Your task to perform on an android device: create a new album in the google photos Image 0: 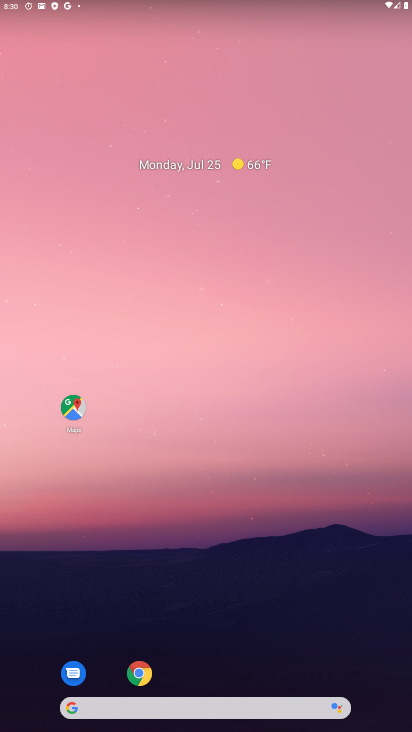
Step 0: click (295, 184)
Your task to perform on an android device: create a new album in the google photos Image 1: 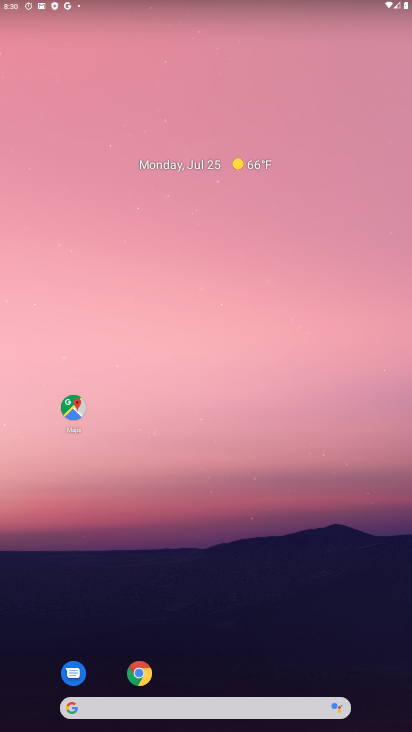
Step 1: drag from (207, 633) to (294, 226)
Your task to perform on an android device: create a new album in the google photos Image 2: 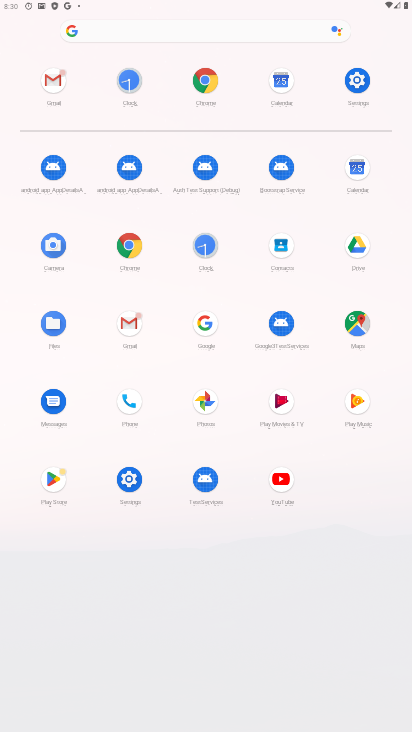
Step 2: click (197, 397)
Your task to perform on an android device: create a new album in the google photos Image 3: 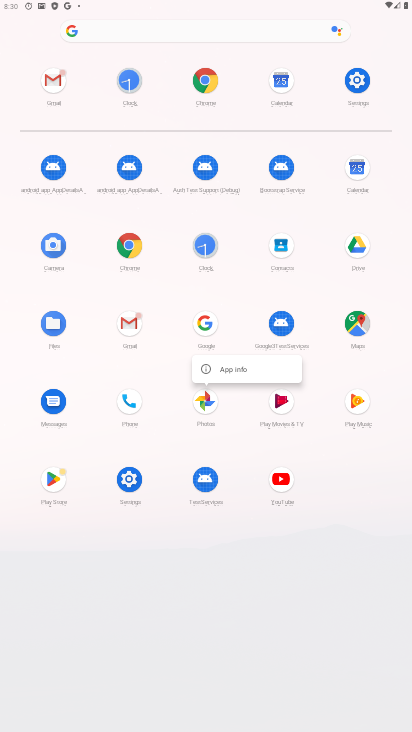
Step 3: click (227, 364)
Your task to perform on an android device: create a new album in the google photos Image 4: 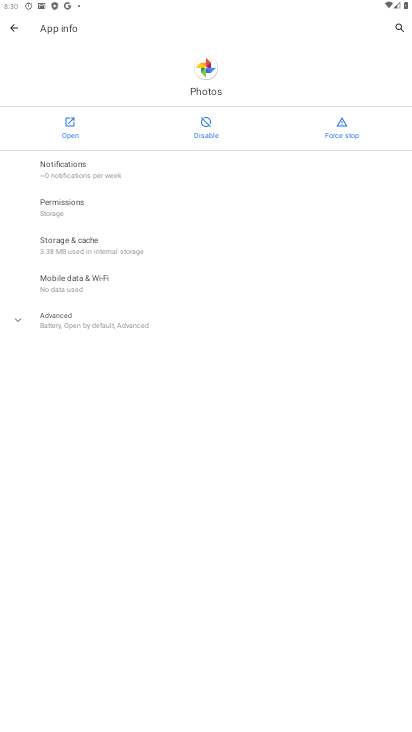
Step 4: click (70, 138)
Your task to perform on an android device: create a new album in the google photos Image 5: 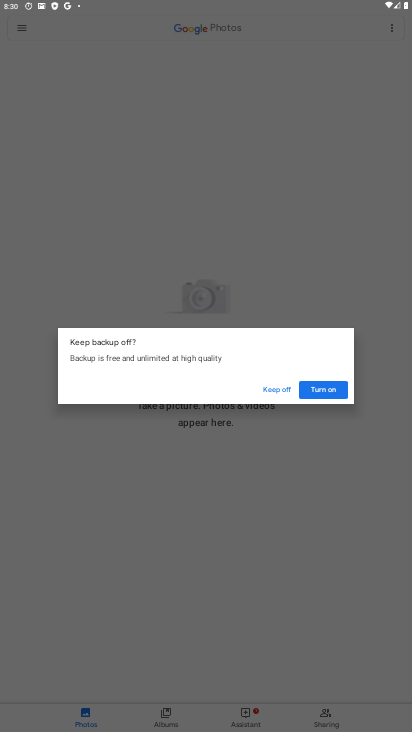
Step 5: click (332, 388)
Your task to perform on an android device: create a new album in the google photos Image 6: 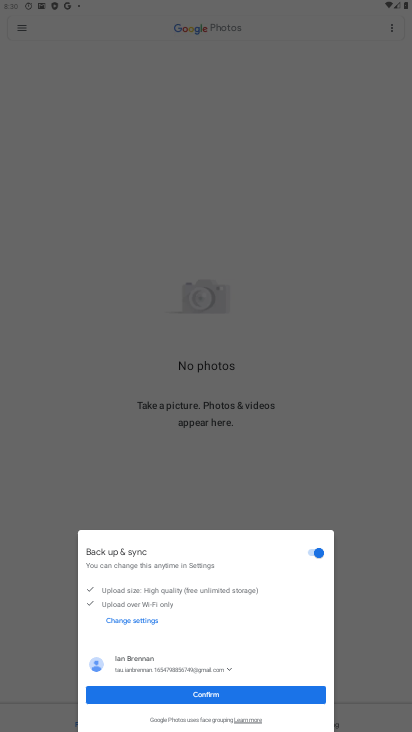
Step 6: click (187, 699)
Your task to perform on an android device: create a new album in the google photos Image 7: 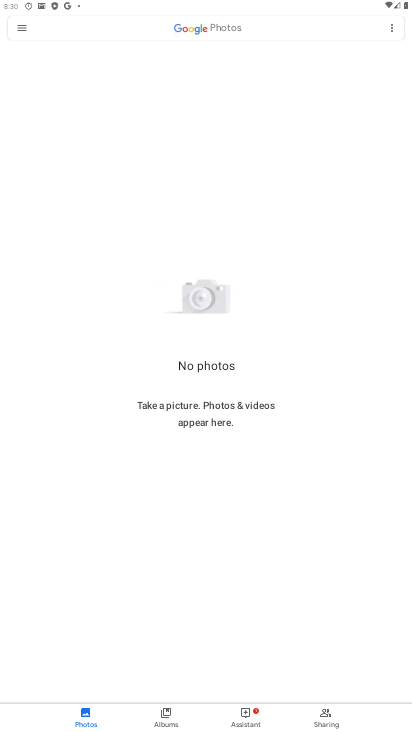
Step 7: drag from (239, 578) to (215, 249)
Your task to perform on an android device: create a new album in the google photos Image 8: 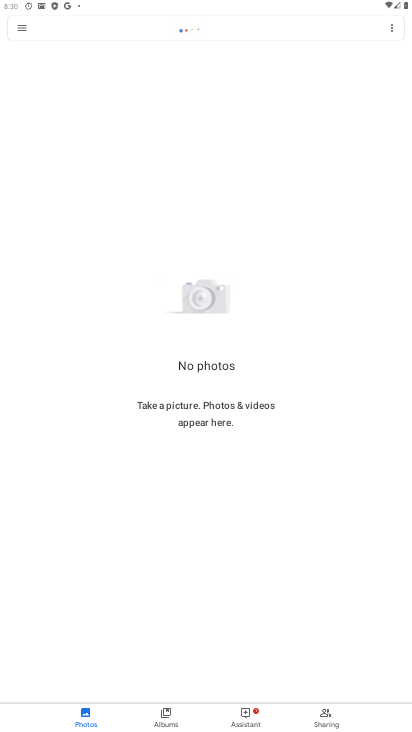
Step 8: click (16, 30)
Your task to perform on an android device: create a new album in the google photos Image 9: 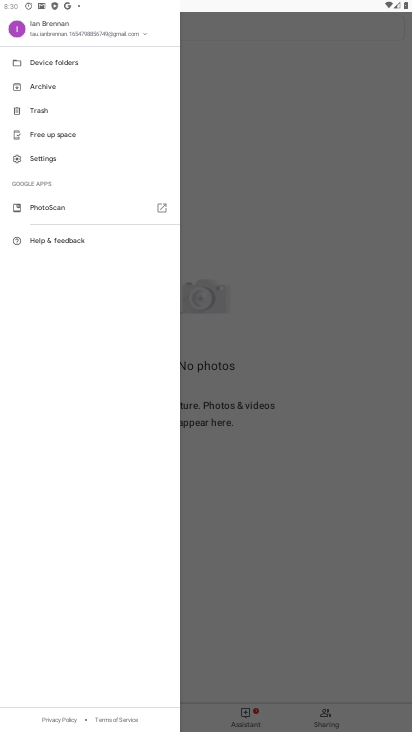
Step 9: click (293, 327)
Your task to perform on an android device: create a new album in the google photos Image 10: 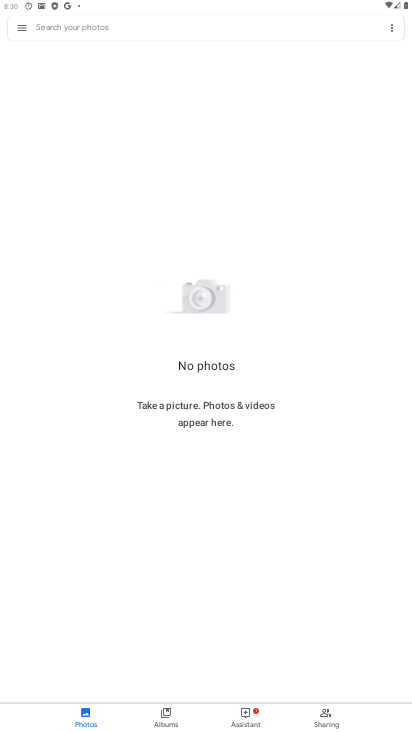
Step 10: click (166, 713)
Your task to perform on an android device: create a new album in the google photos Image 11: 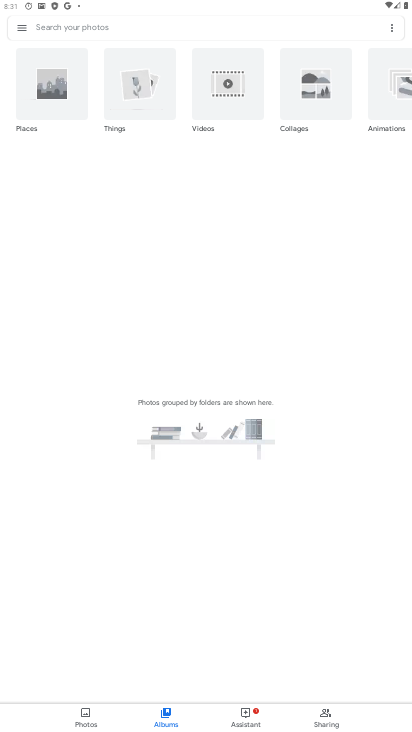
Step 11: drag from (256, 480) to (259, 254)
Your task to perform on an android device: create a new album in the google photos Image 12: 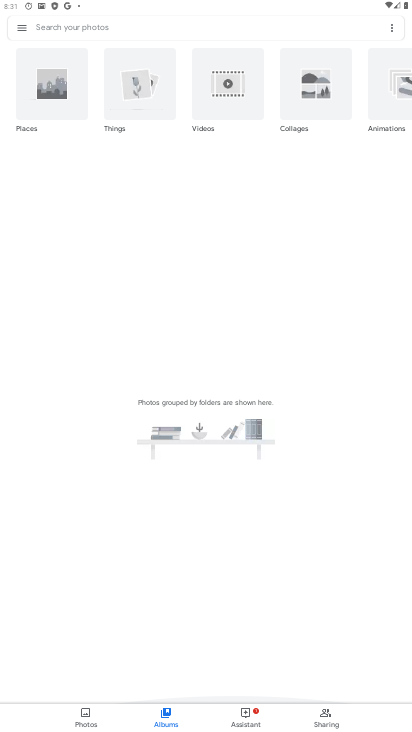
Step 12: drag from (247, 222) to (332, 557)
Your task to perform on an android device: create a new album in the google photos Image 13: 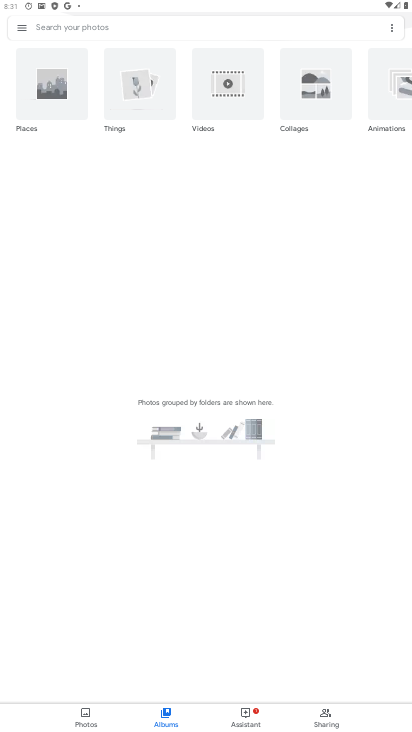
Step 13: drag from (309, 524) to (294, 474)
Your task to perform on an android device: create a new album in the google photos Image 14: 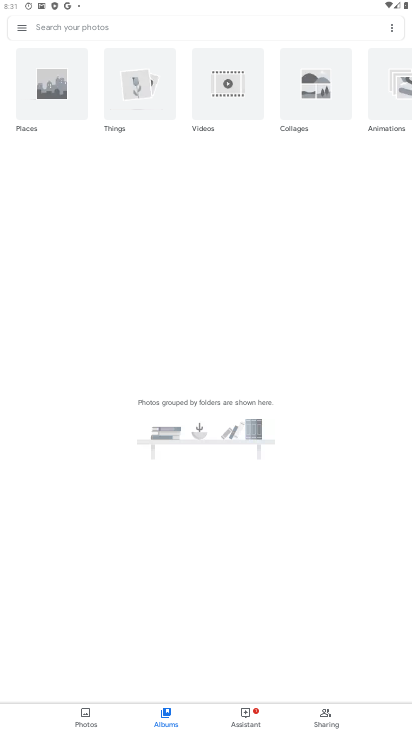
Step 14: click (219, 236)
Your task to perform on an android device: create a new album in the google photos Image 15: 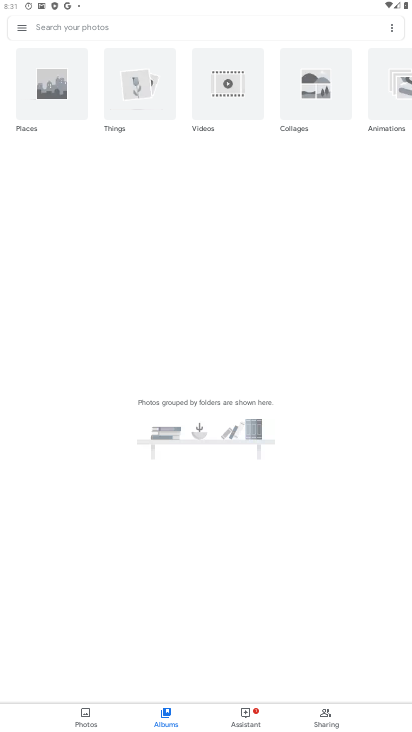
Step 15: click (242, 531)
Your task to perform on an android device: create a new album in the google photos Image 16: 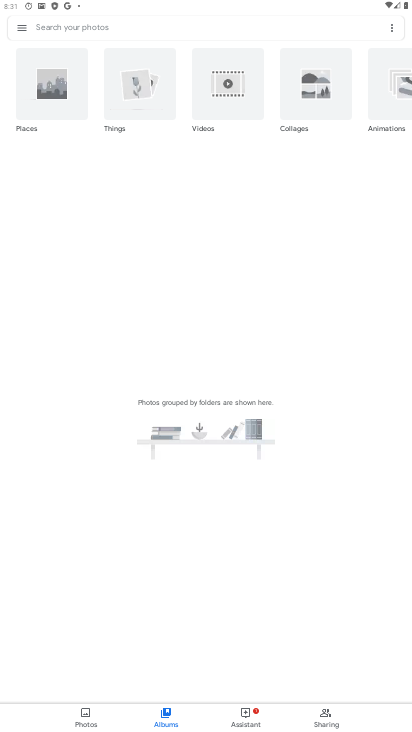
Step 16: click (206, 425)
Your task to perform on an android device: create a new album in the google photos Image 17: 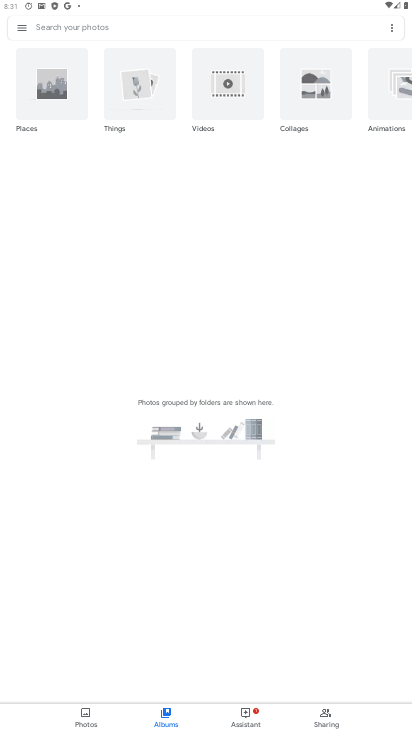
Step 17: click (204, 416)
Your task to perform on an android device: create a new album in the google photos Image 18: 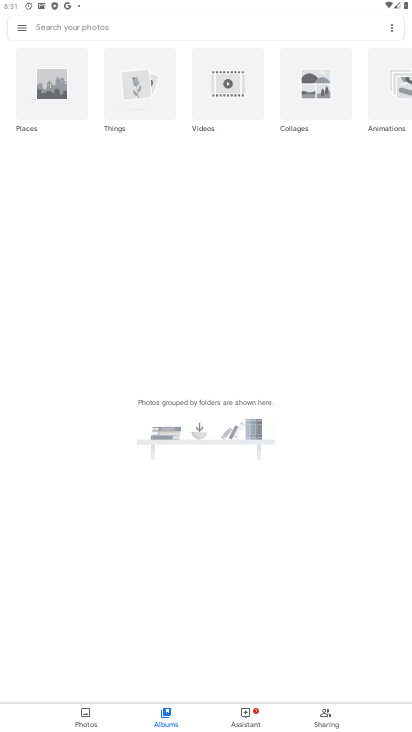
Step 18: click (200, 408)
Your task to perform on an android device: create a new album in the google photos Image 19: 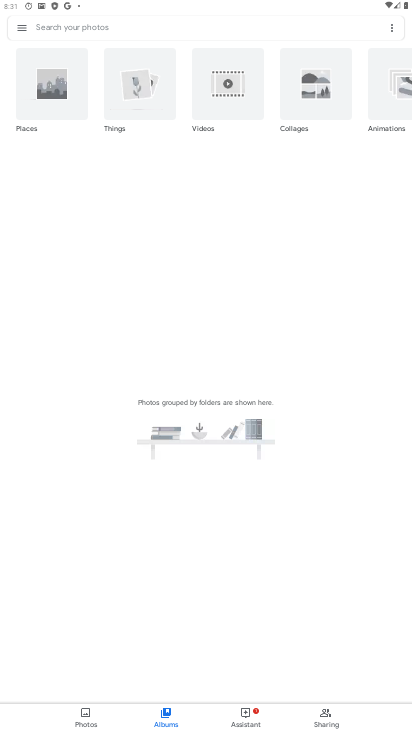
Step 19: click (200, 408)
Your task to perform on an android device: create a new album in the google photos Image 20: 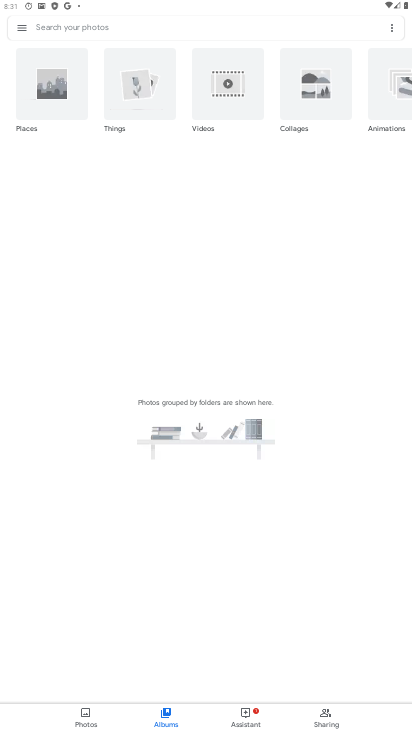
Step 20: click (256, 518)
Your task to perform on an android device: create a new album in the google photos Image 21: 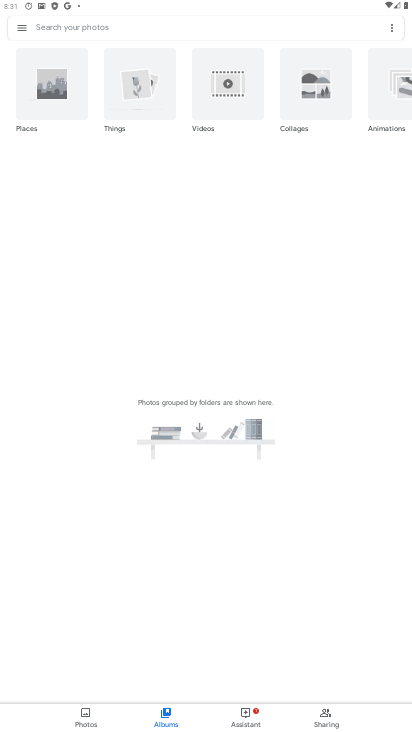
Step 21: click (222, 318)
Your task to perform on an android device: create a new album in the google photos Image 22: 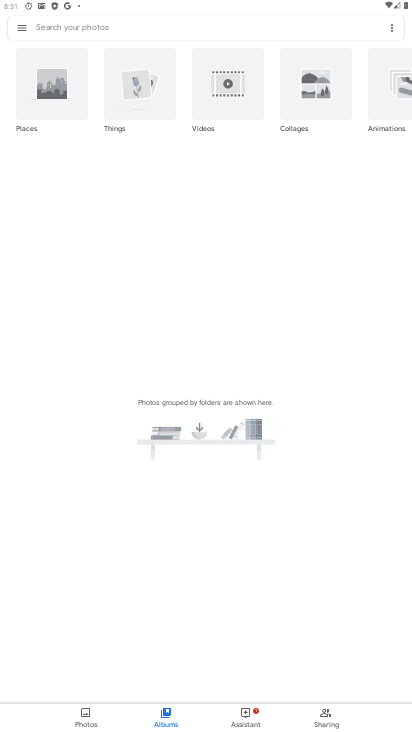
Step 22: click (185, 264)
Your task to perform on an android device: create a new album in the google photos Image 23: 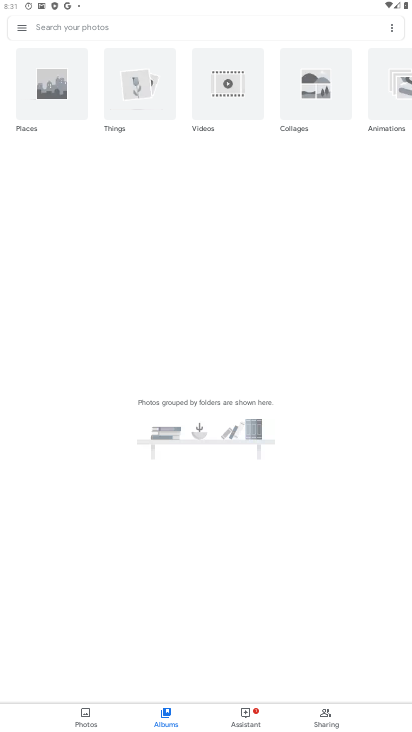
Step 23: click (234, 129)
Your task to perform on an android device: create a new album in the google photos Image 24: 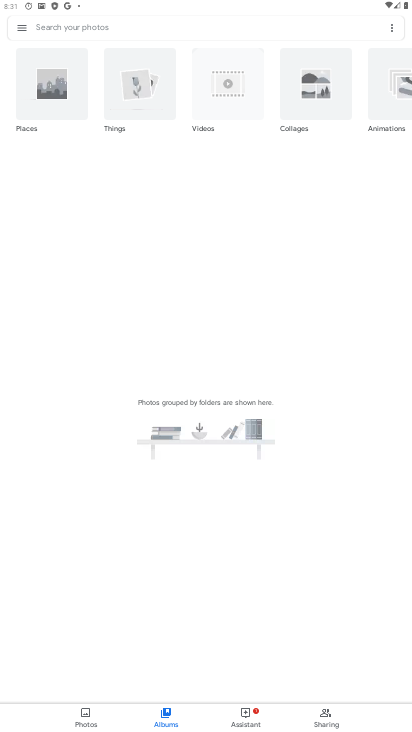
Step 24: drag from (208, 208) to (221, 446)
Your task to perform on an android device: create a new album in the google photos Image 25: 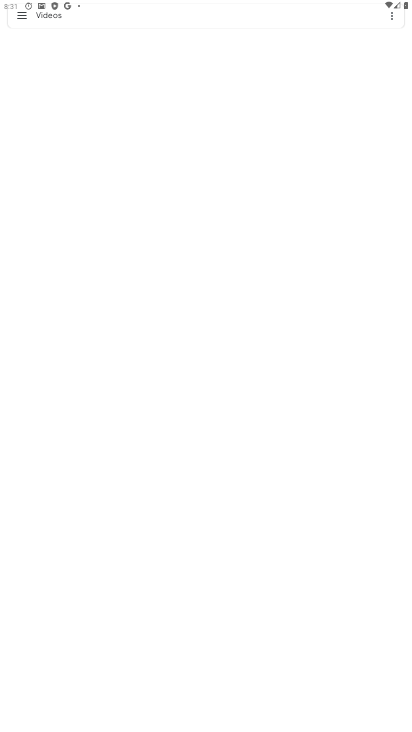
Step 25: click (221, 454)
Your task to perform on an android device: create a new album in the google photos Image 26: 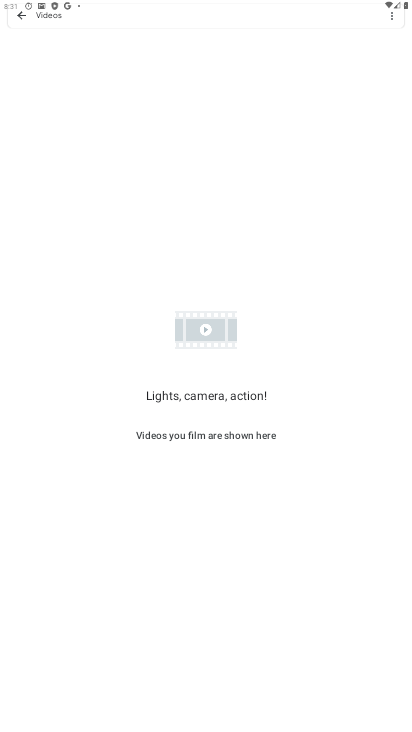
Step 26: task complete